Your task to perform on an android device: Go to Wikipedia Image 0: 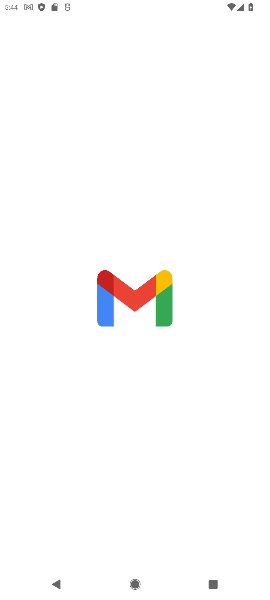
Step 0: press home button
Your task to perform on an android device: Go to Wikipedia Image 1: 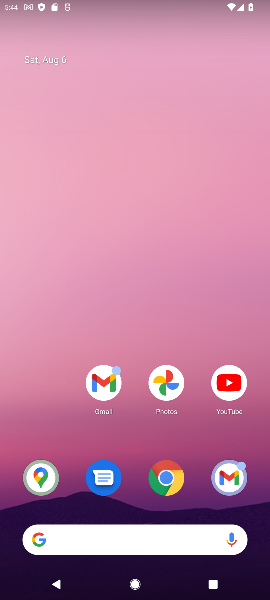
Step 1: click (40, 536)
Your task to perform on an android device: Go to Wikipedia Image 2: 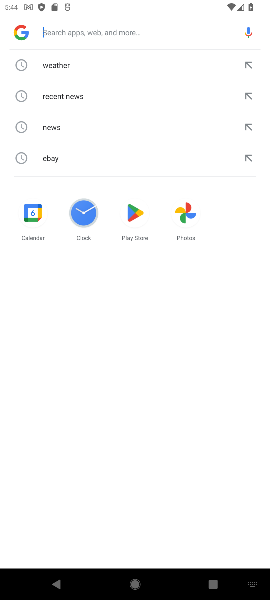
Step 2: type "Wikipedia"
Your task to perform on an android device: Go to Wikipedia Image 3: 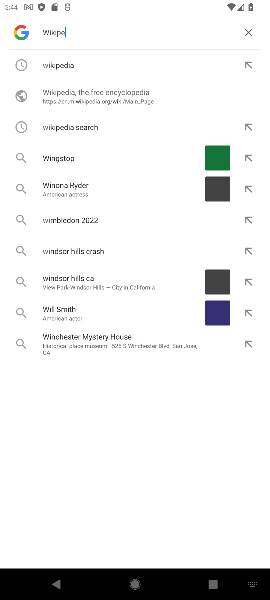
Step 3: press enter
Your task to perform on an android device: Go to Wikipedia Image 4: 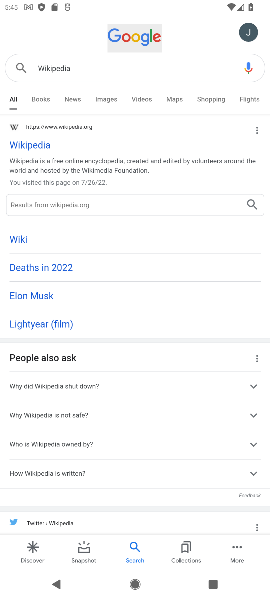
Step 4: click (16, 151)
Your task to perform on an android device: Go to Wikipedia Image 5: 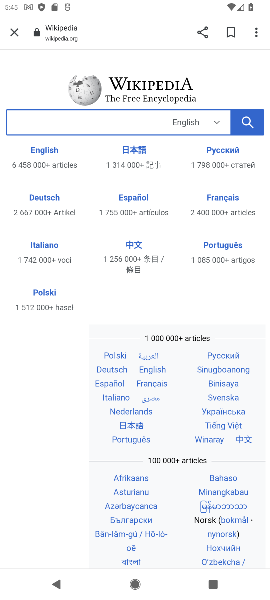
Step 5: task complete